Your task to perform on an android device: Go to calendar. Show me events next week Image 0: 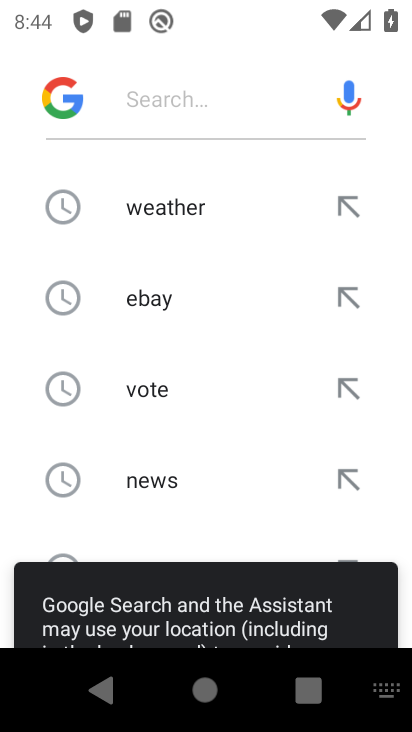
Step 0: press home button
Your task to perform on an android device: Go to calendar. Show me events next week Image 1: 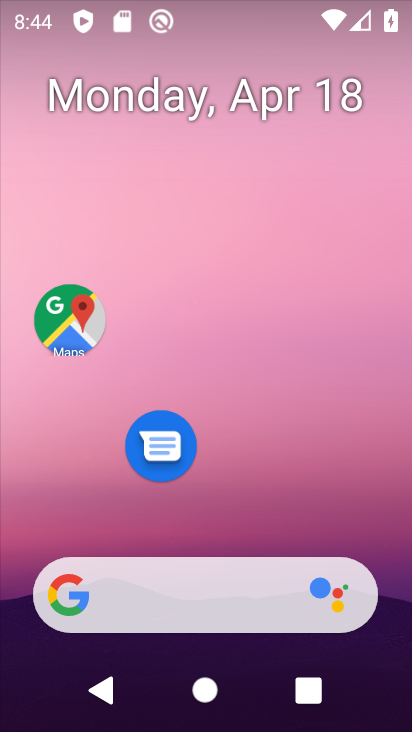
Step 1: drag from (224, 465) to (224, 106)
Your task to perform on an android device: Go to calendar. Show me events next week Image 2: 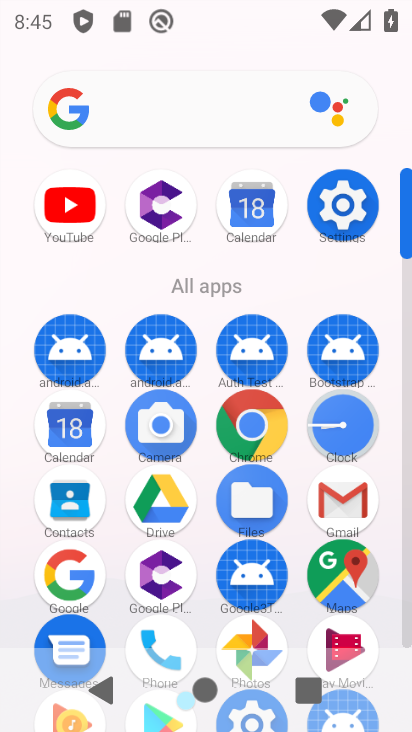
Step 2: click (67, 422)
Your task to perform on an android device: Go to calendar. Show me events next week Image 3: 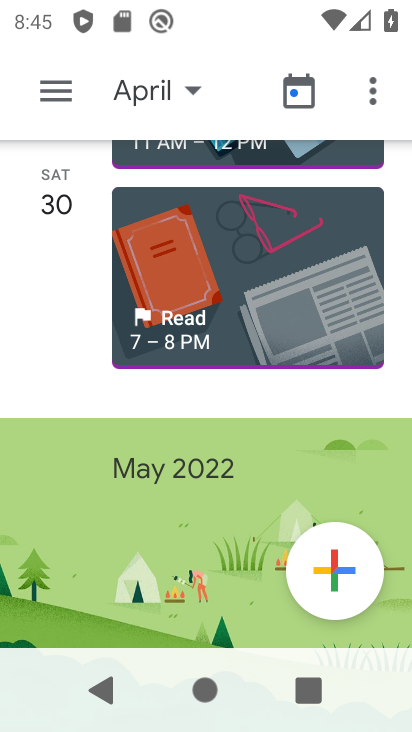
Step 3: click (45, 79)
Your task to perform on an android device: Go to calendar. Show me events next week Image 4: 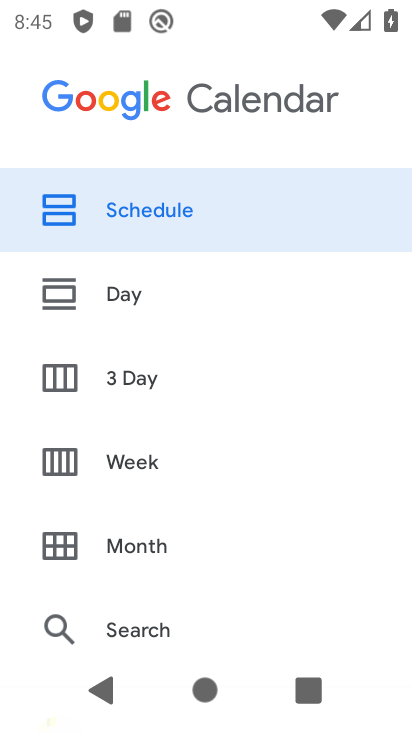
Step 4: click (96, 445)
Your task to perform on an android device: Go to calendar. Show me events next week Image 5: 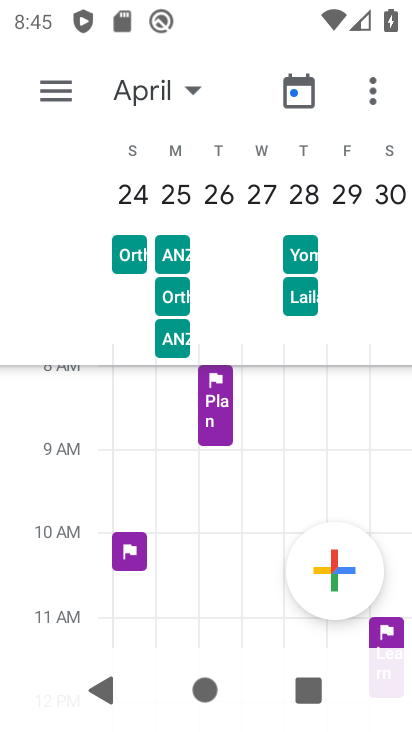
Step 5: click (133, 196)
Your task to perform on an android device: Go to calendar. Show me events next week Image 6: 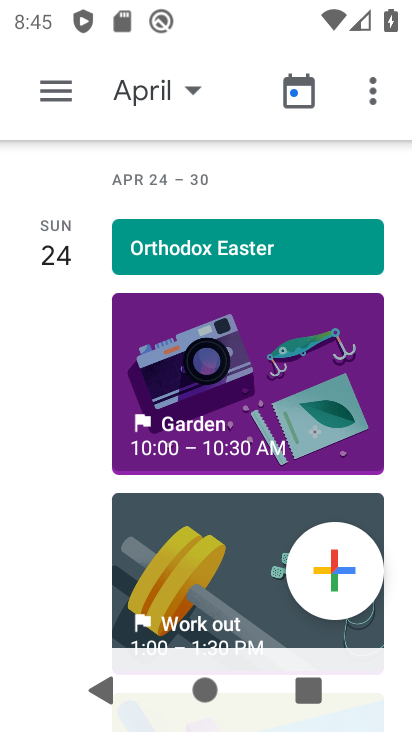
Step 6: task complete